Your task to perform on an android device: remove spam from my inbox in the gmail app Image 0: 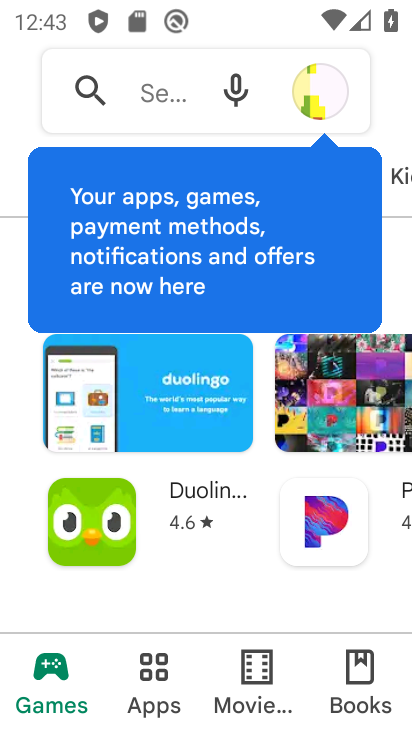
Step 0: press home button
Your task to perform on an android device: remove spam from my inbox in the gmail app Image 1: 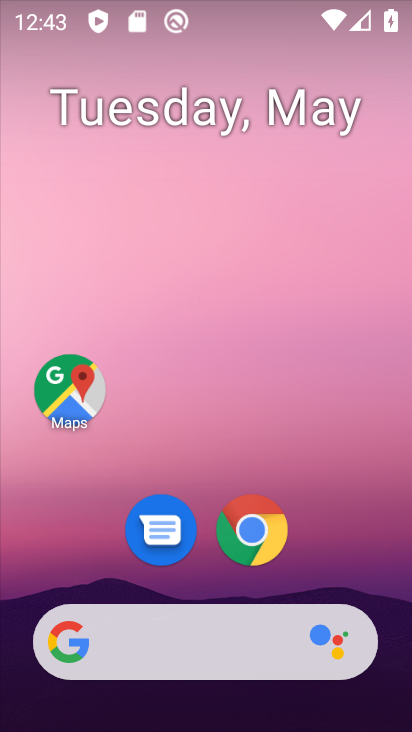
Step 1: drag from (326, 532) to (331, 181)
Your task to perform on an android device: remove spam from my inbox in the gmail app Image 2: 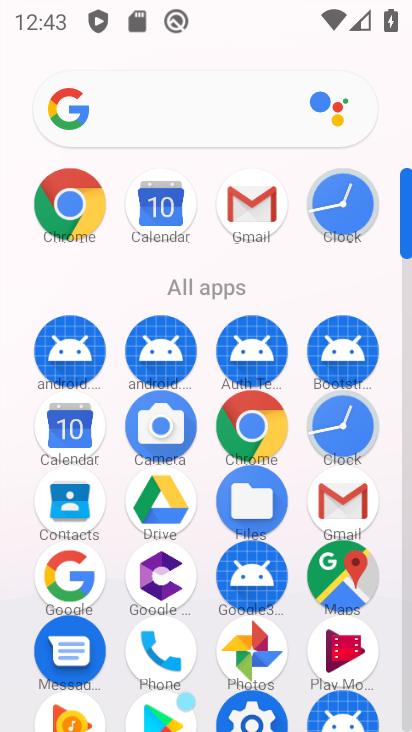
Step 2: click (235, 211)
Your task to perform on an android device: remove spam from my inbox in the gmail app Image 3: 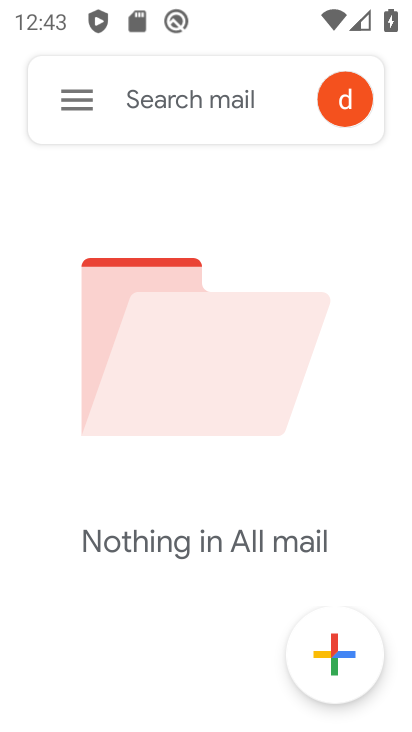
Step 3: click (70, 105)
Your task to perform on an android device: remove spam from my inbox in the gmail app Image 4: 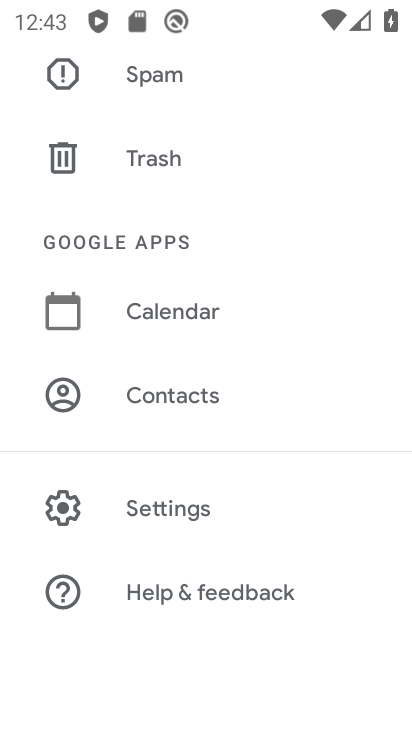
Step 4: click (163, 89)
Your task to perform on an android device: remove spam from my inbox in the gmail app Image 5: 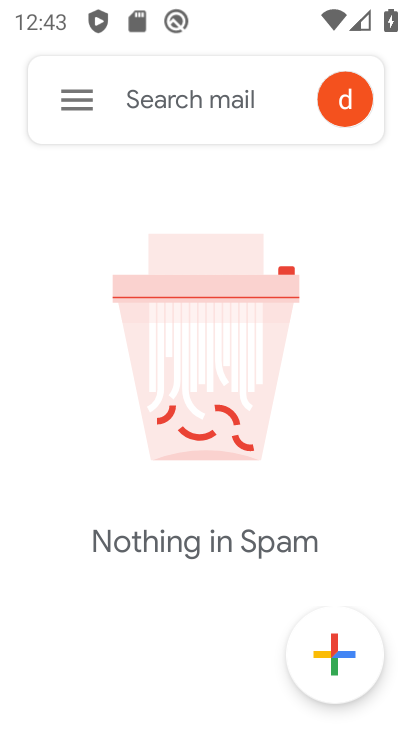
Step 5: task complete